Your task to perform on an android device: What is the recent news? Image 0: 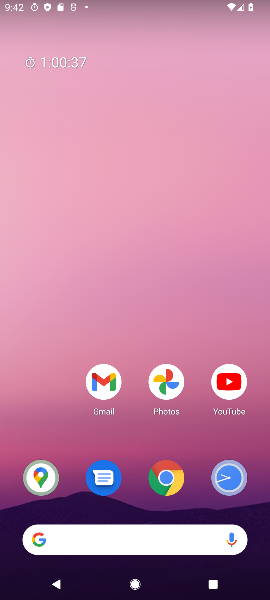
Step 0: press home button
Your task to perform on an android device: What is the recent news? Image 1: 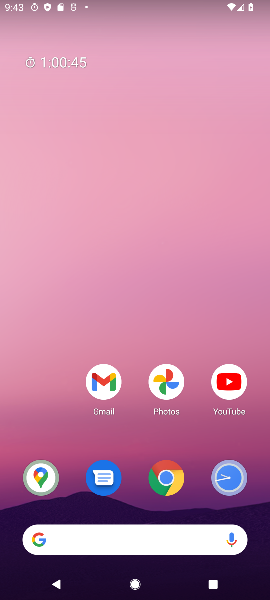
Step 1: click (171, 487)
Your task to perform on an android device: What is the recent news? Image 2: 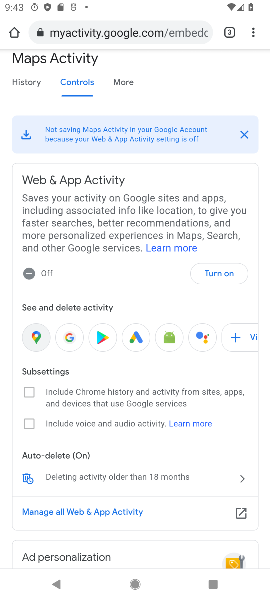
Step 2: click (86, 42)
Your task to perform on an android device: What is the recent news? Image 3: 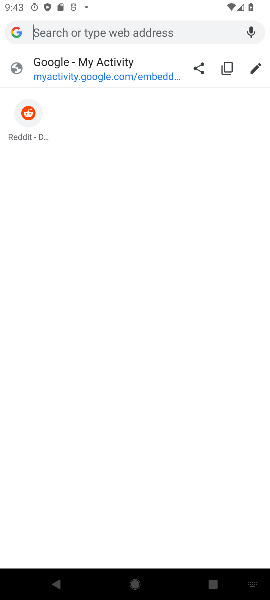
Step 3: type "What is the recent news?"
Your task to perform on an android device: What is the recent news? Image 4: 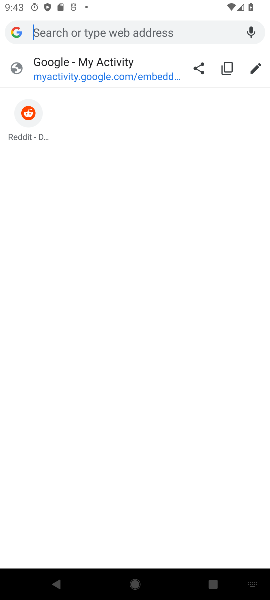
Step 4: click (22, 64)
Your task to perform on an android device: What is the recent news? Image 5: 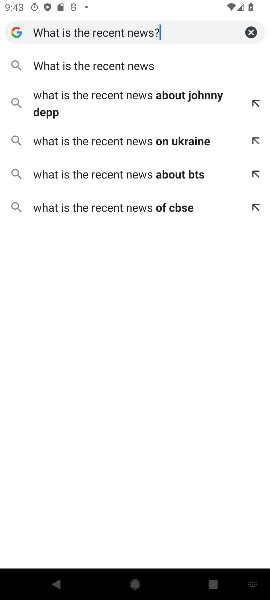
Step 5: type ""
Your task to perform on an android device: What is the recent news? Image 6: 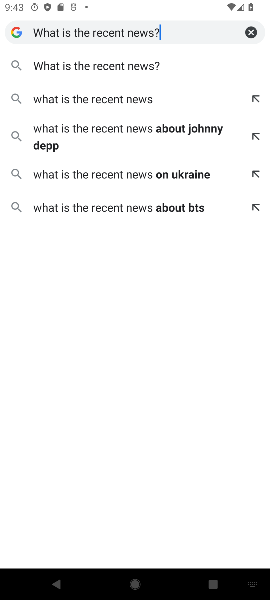
Step 6: click (37, 62)
Your task to perform on an android device: What is the recent news? Image 7: 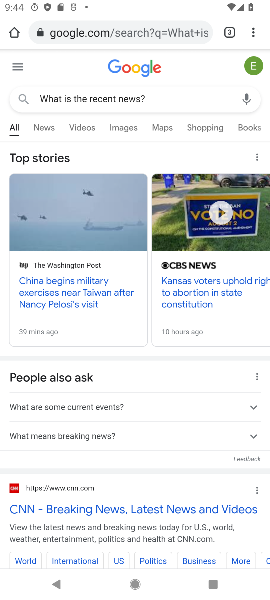
Step 7: task complete